Your task to perform on an android device: Open wifi settings Image 0: 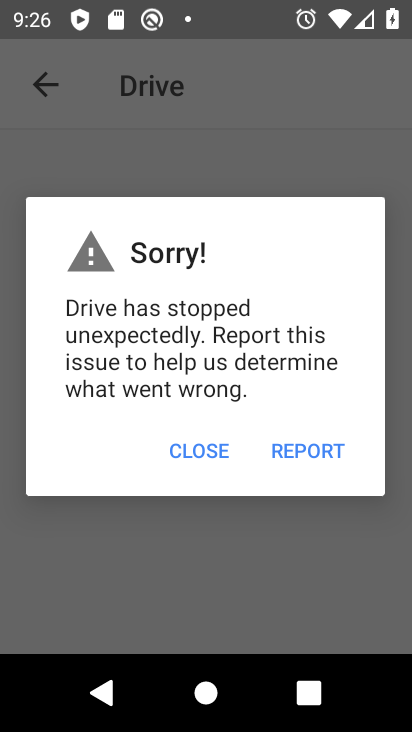
Step 0: press home button
Your task to perform on an android device: Open wifi settings Image 1: 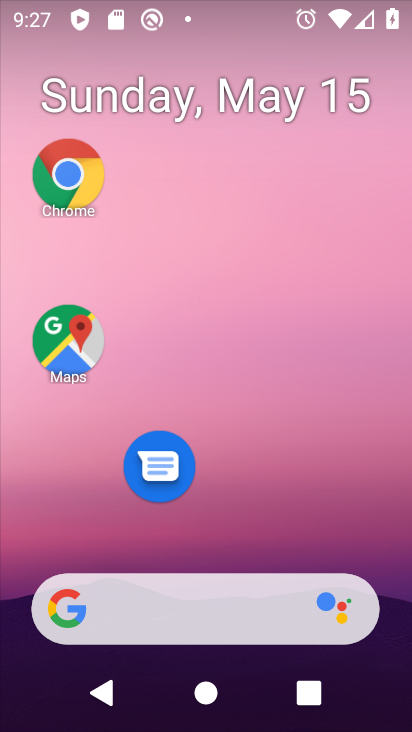
Step 1: drag from (281, 558) to (320, 67)
Your task to perform on an android device: Open wifi settings Image 2: 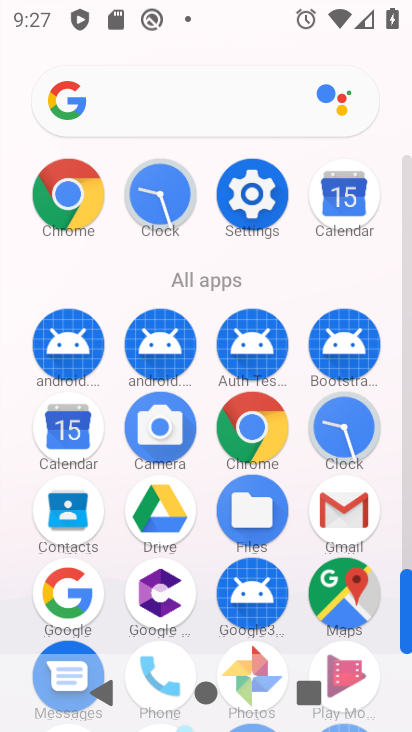
Step 2: click (256, 193)
Your task to perform on an android device: Open wifi settings Image 3: 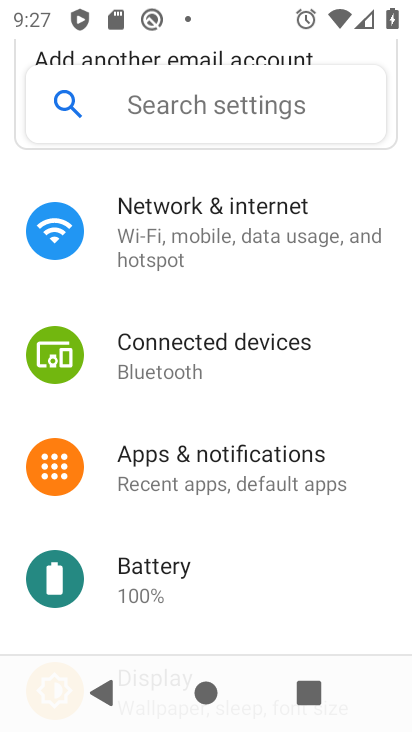
Step 3: click (256, 193)
Your task to perform on an android device: Open wifi settings Image 4: 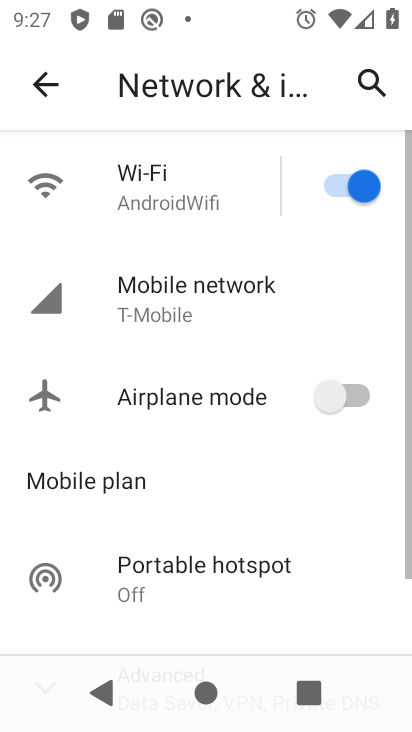
Step 4: click (256, 193)
Your task to perform on an android device: Open wifi settings Image 5: 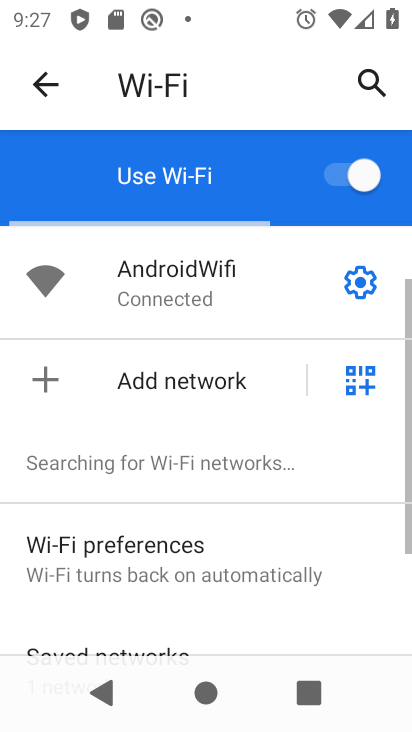
Step 5: click (348, 278)
Your task to perform on an android device: Open wifi settings Image 6: 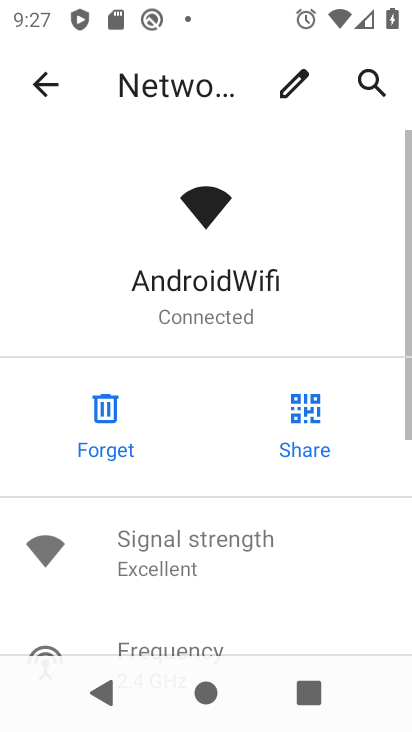
Step 6: task complete